Your task to perform on an android device: turn off notifications in google photos Image 0: 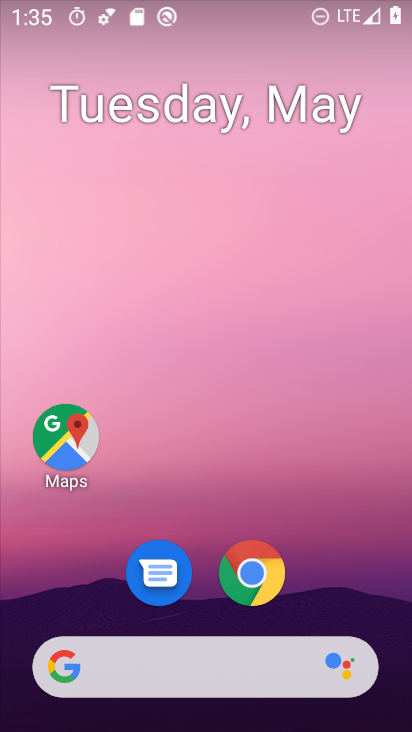
Step 0: drag from (341, 548) to (272, 172)
Your task to perform on an android device: turn off notifications in google photos Image 1: 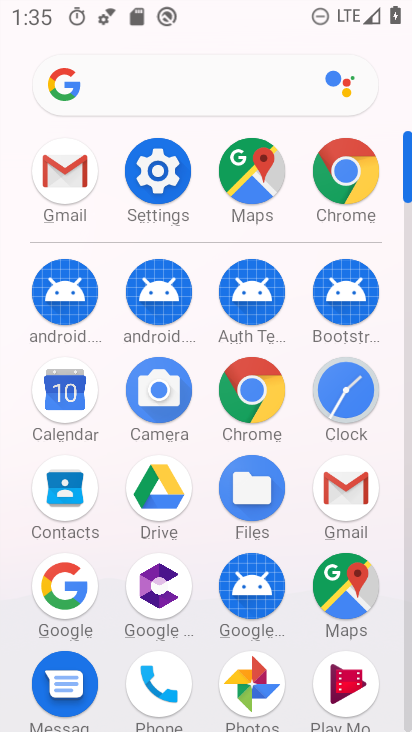
Step 1: click (248, 688)
Your task to perform on an android device: turn off notifications in google photos Image 2: 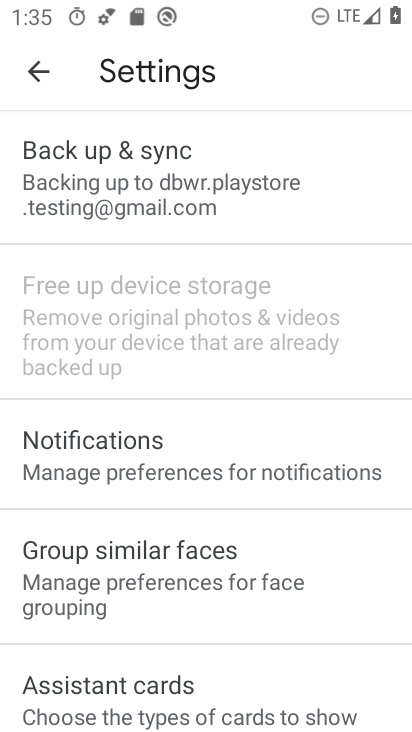
Step 2: click (74, 449)
Your task to perform on an android device: turn off notifications in google photos Image 3: 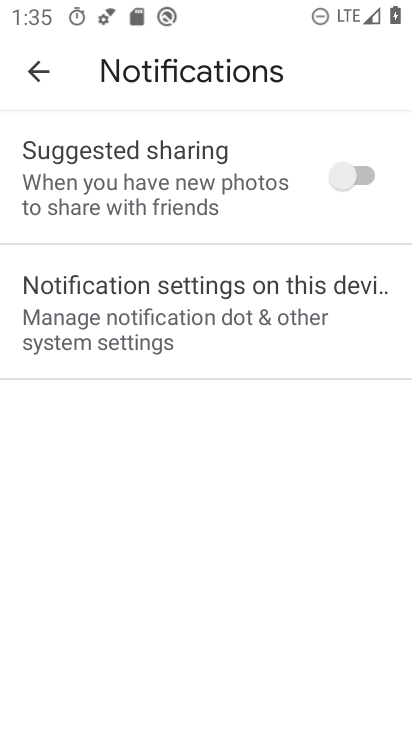
Step 3: click (216, 302)
Your task to perform on an android device: turn off notifications in google photos Image 4: 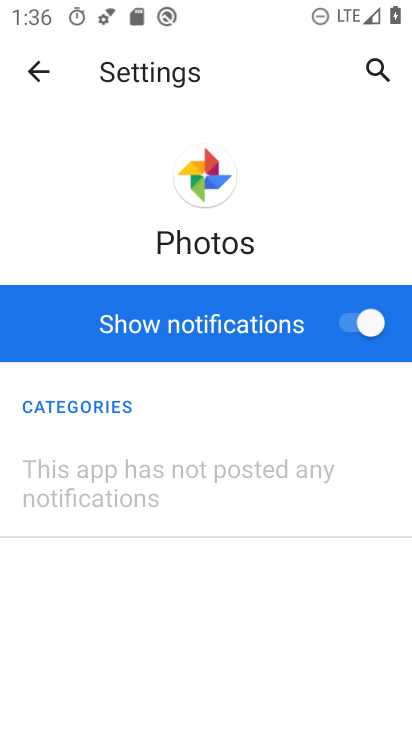
Step 4: click (380, 313)
Your task to perform on an android device: turn off notifications in google photos Image 5: 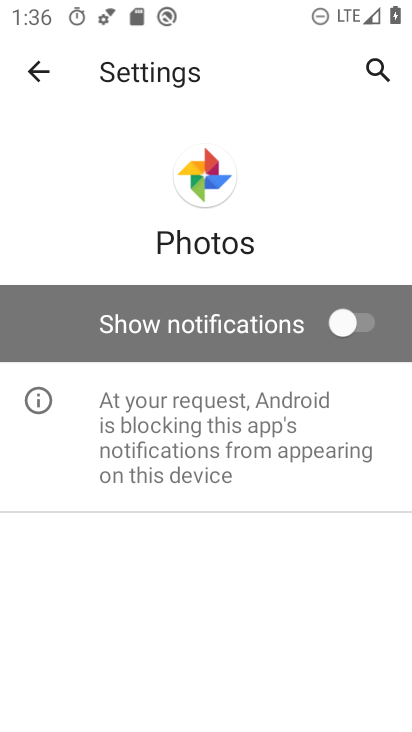
Step 5: task complete